Your task to perform on an android device: Open display settings Image 0: 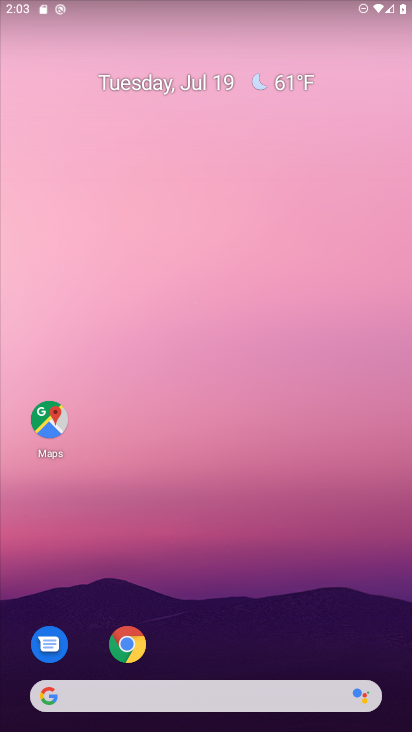
Step 0: click (263, 18)
Your task to perform on an android device: Open display settings Image 1: 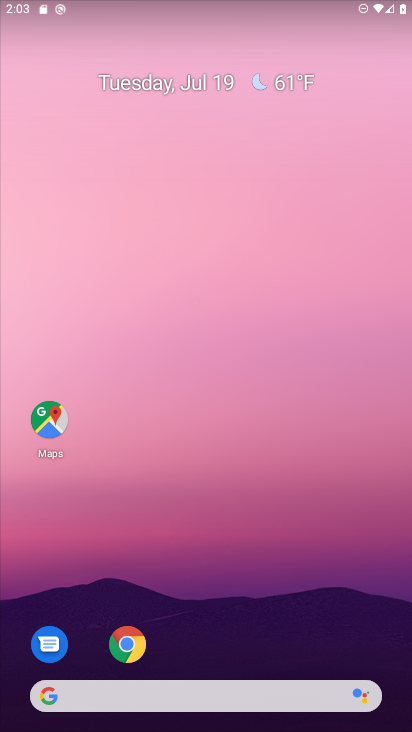
Step 1: drag from (213, 663) to (232, 108)
Your task to perform on an android device: Open display settings Image 2: 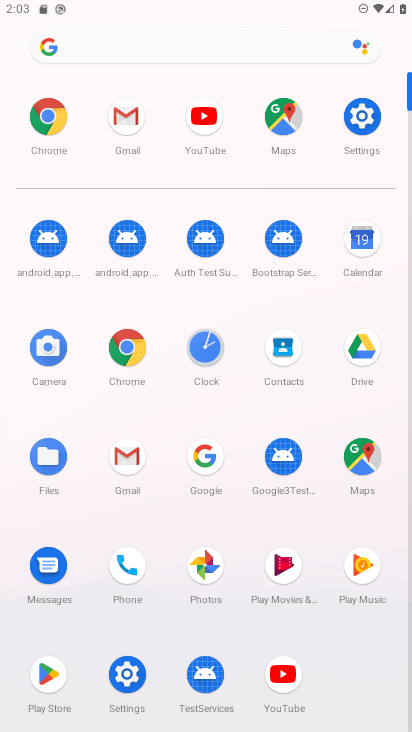
Step 2: click (378, 122)
Your task to perform on an android device: Open display settings Image 3: 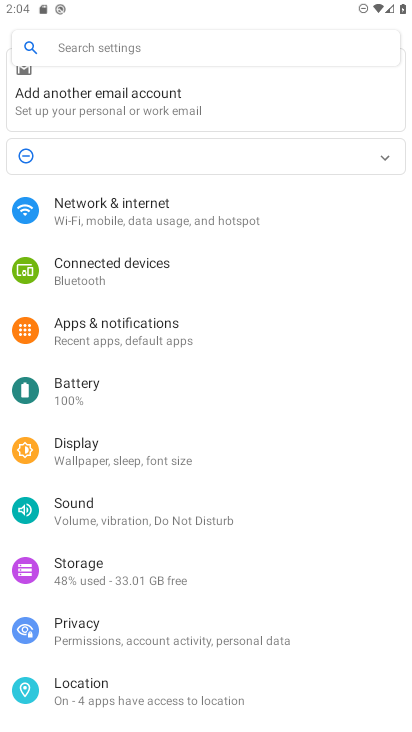
Step 3: click (78, 452)
Your task to perform on an android device: Open display settings Image 4: 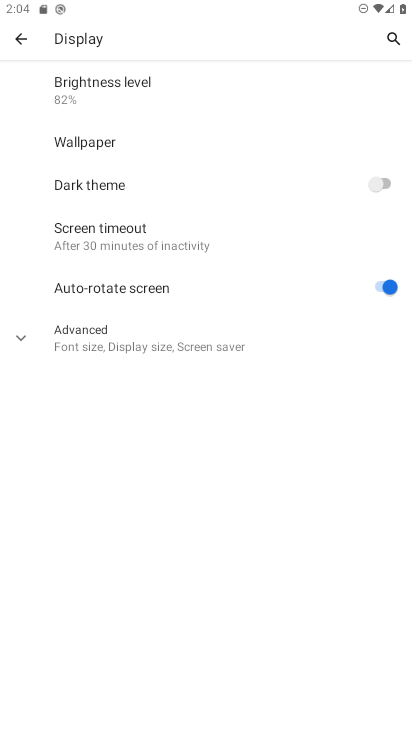
Step 4: task complete